Your task to perform on an android device: Go to accessibility settings Image 0: 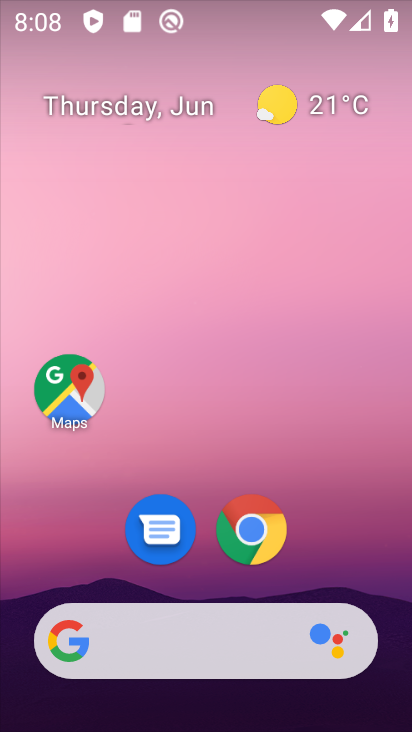
Step 0: drag from (372, 607) to (340, 163)
Your task to perform on an android device: Go to accessibility settings Image 1: 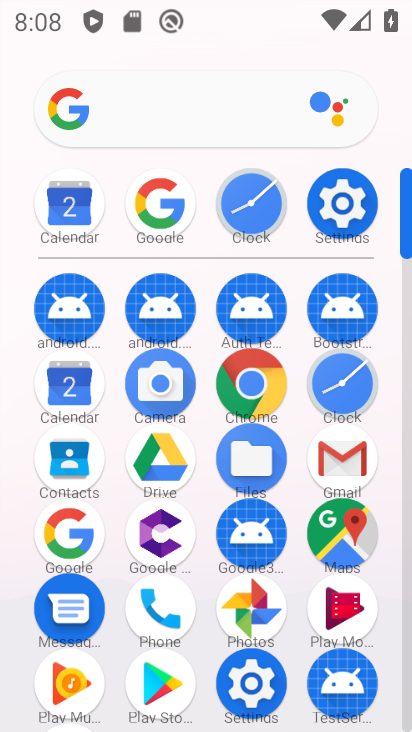
Step 1: click (353, 185)
Your task to perform on an android device: Go to accessibility settings Image 2: 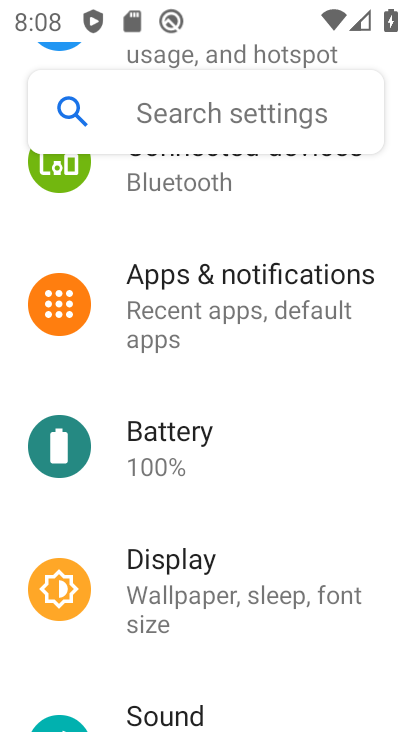
Step 2: drag from (343, 705) to (285, 145)
Your task to perform on an android device: Go to accessibility settings Image 3: 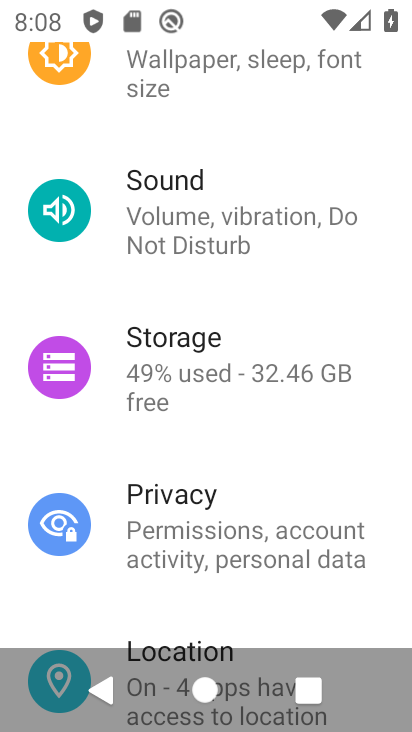
Step 3: drag from (343, 615) to (326, 216)
Your task to perform on an android device: Go to accessibility settings Image 4: 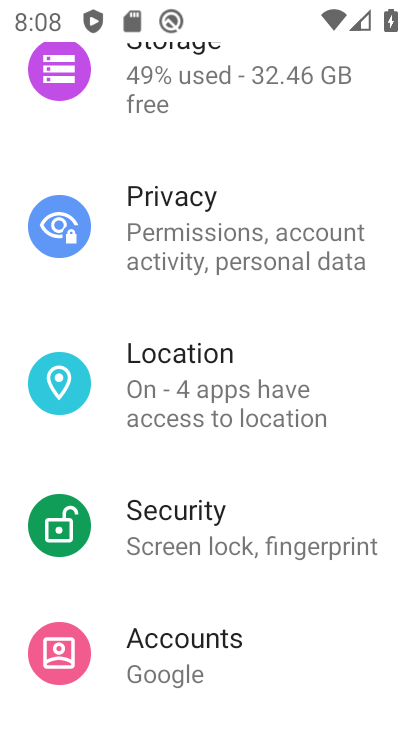
Step 4: drag from (334, 690) to (313, 194)
Your task to perform on an android device: Go to accessibility settings Image 5: 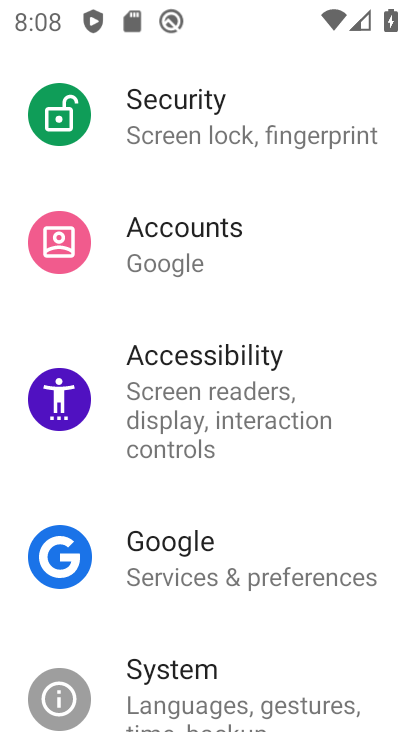
Step 5: click (192, 389)
Your task to perform on an android device: Go to accessibility settings Image 6: 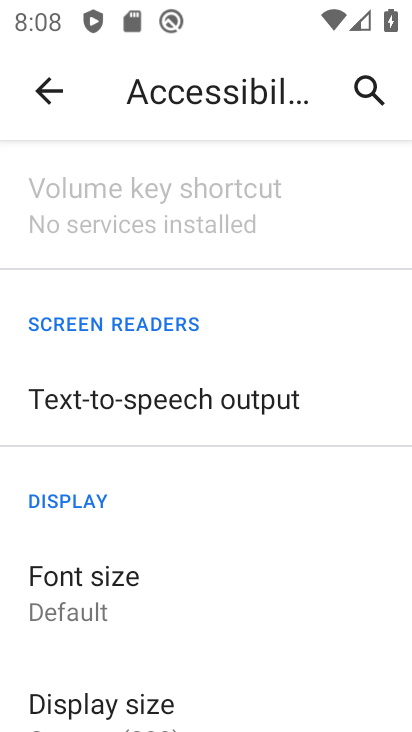
Step 6: task complete